Your task to perform on an android device: change text size in settings app Image 0: 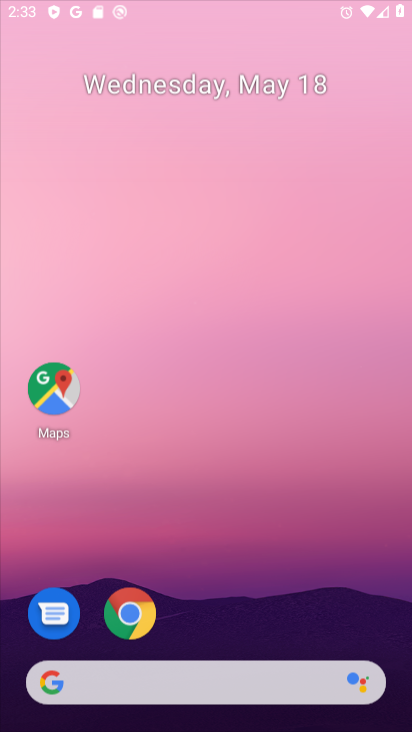
Step 0: click (128, 610)
Your task to perform on an android device: change text size in settings app Image 1: 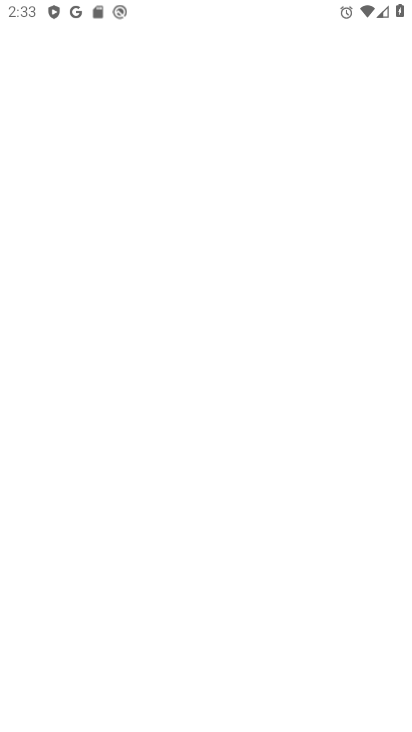
Step 1: press home button
Your task to perform on an android device: change text size in settings app Image 2: 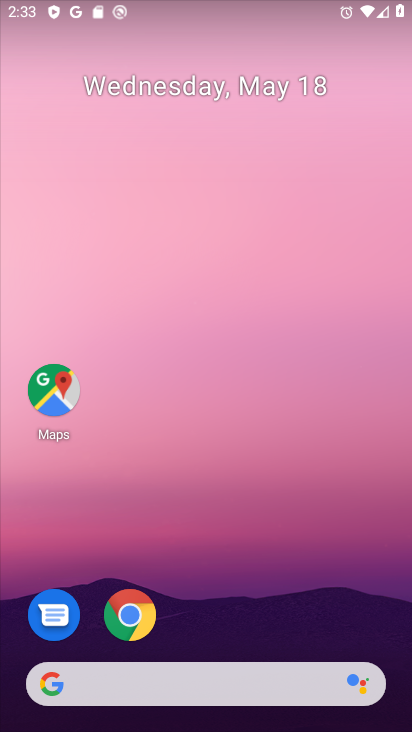
Step 2: drag from (212, 639) to (233, 298)
Your task to perform on an android device: change text size in settings app Image 3: 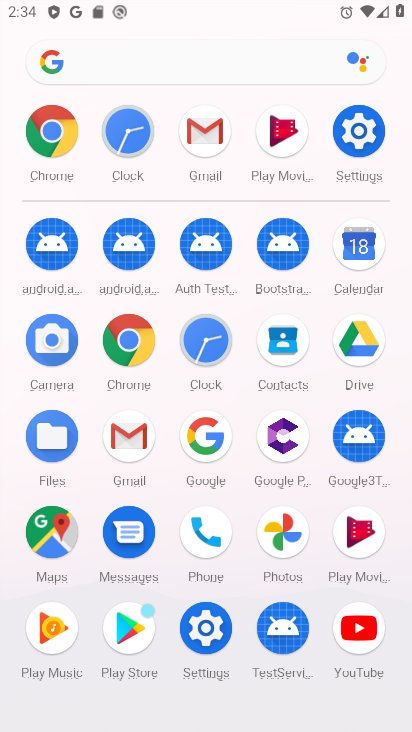
Step 3: click (355, 131)
Your task to perform on an android device: change text size in settings app Image 4: 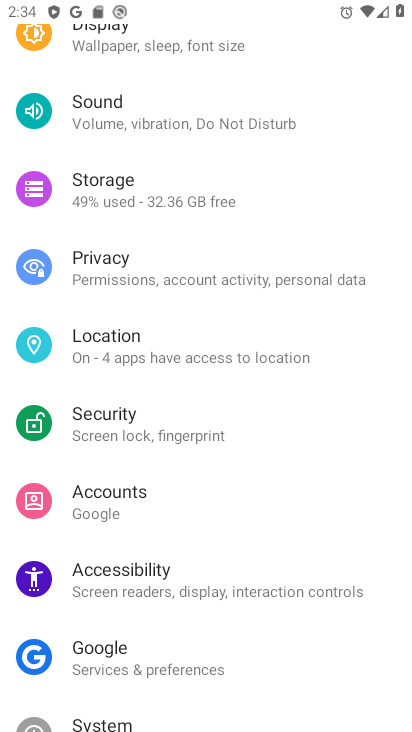
Step 4: drag from (193, 527) to (268, 569)
Your task to perform on an android device: change text size in settings app Image 5: 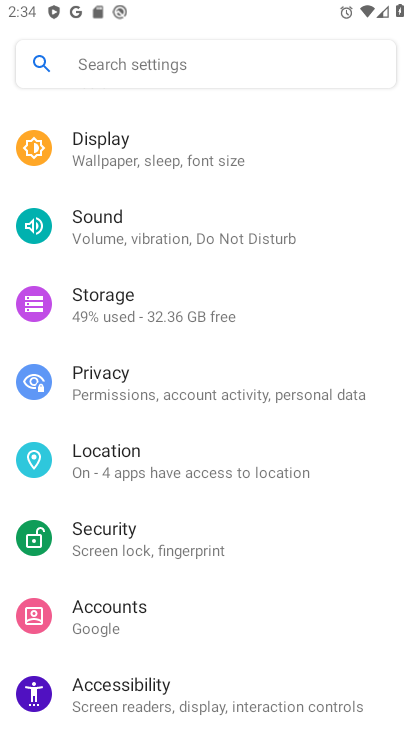
Step 5: click (177, 156)
Your task to perform on an android device: change text size in settings app Image 6: 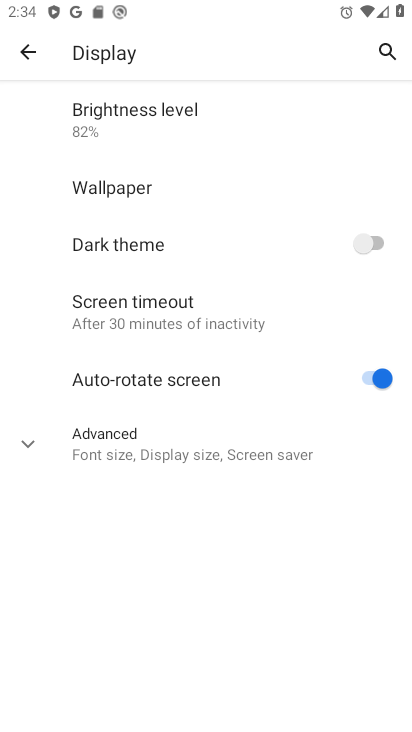
Step 6: click (38, 438)
Your task to perform on an android device: change text size in settings app Image 7: 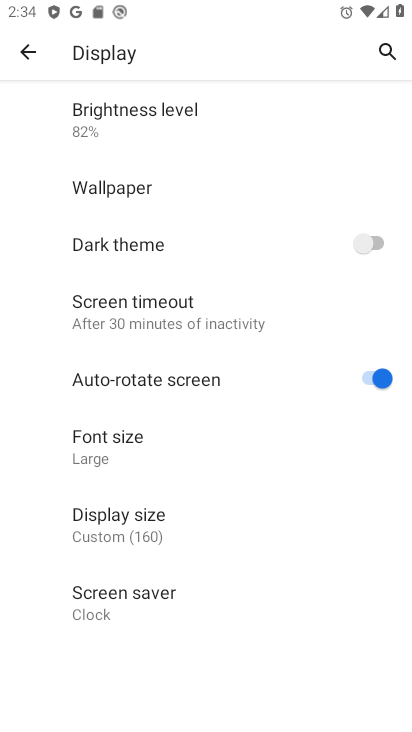
Step 7: click (99, 447)
Your task to perform on an android device: change text size in settings app Image 8: 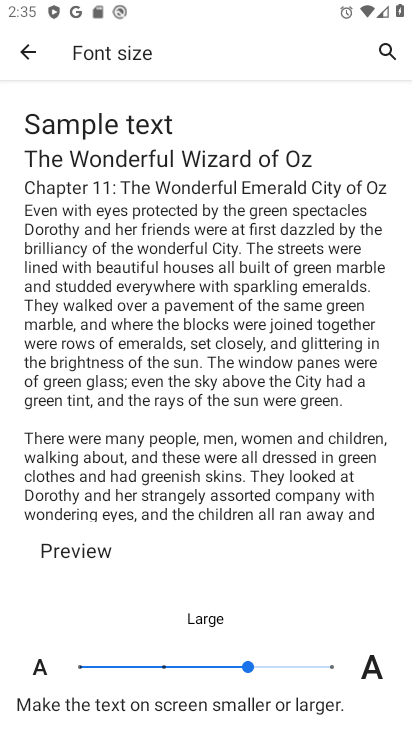
Step 8: task complete